Your task to perform on an android device: add a contact in the contacts app Image 0: 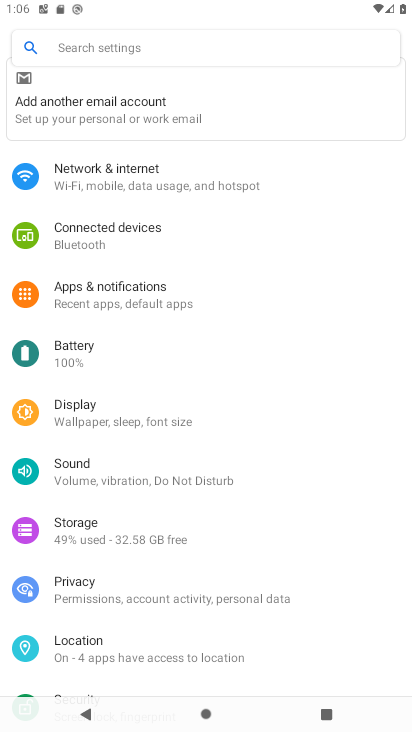
Step 0: press home button
Your task to perform on an android device: add a contact in the contacts app Image 1: 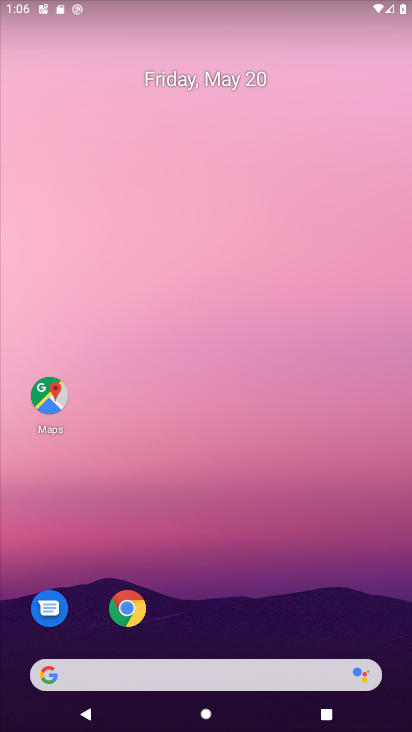
Step 1: drag from (250, 581) to (258, 281)
Your task to perform on an android device: add a contact in the contacts app Image 2: 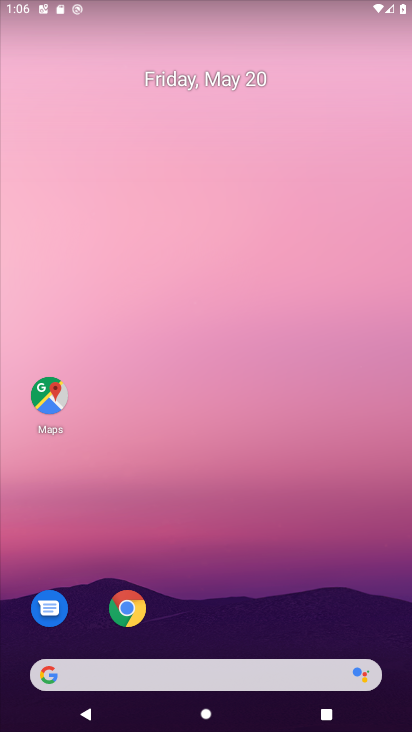
Step 2: drag from (248, 618) to (290, 125)
Your task to perform on an android device: add a contact in the contacts app Image 3: 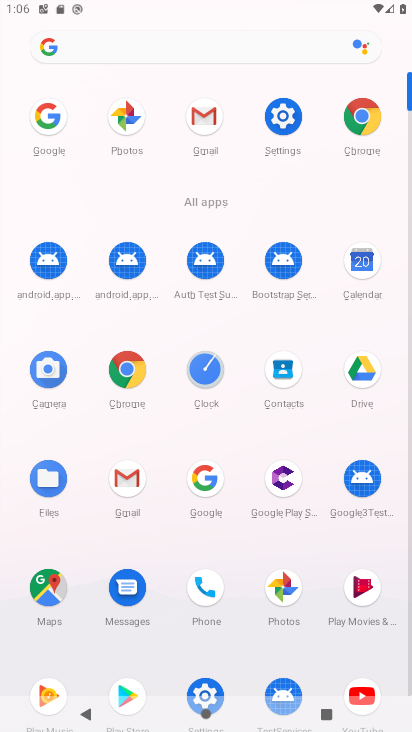
Step 3: click (270, 381)
Your task to perform on an android device: add a contact in the contacts app Image 4: 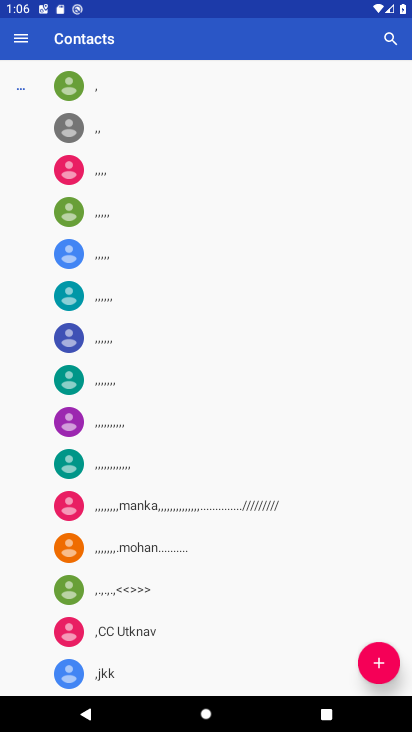
Step 4: click (382, 657)
Your task to perform on an android device: add a contact in the contacts app Image 5: 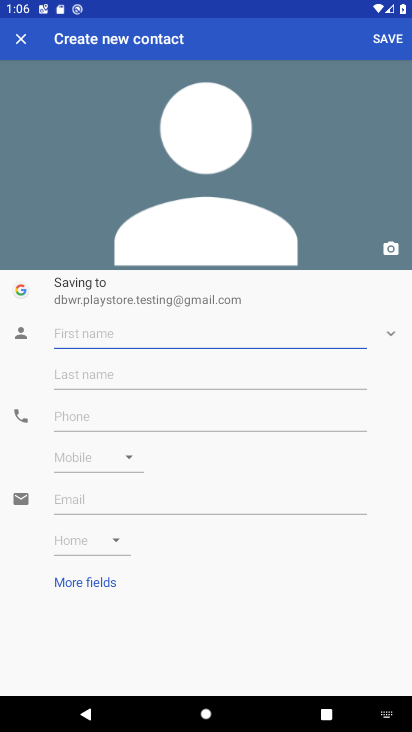
Step 5: type "kundan"
Your task to perform on an android device: add a contact in the contacts app Image 6: 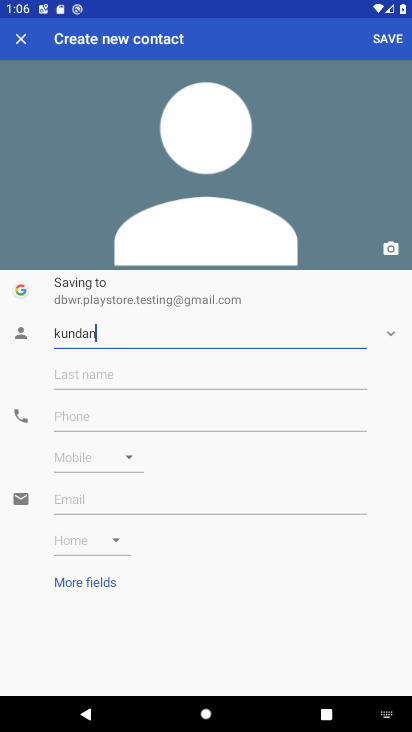
Step 6: click (111, 419)
Your task to perform on an android device: add a contact in the contacts app Image 7: 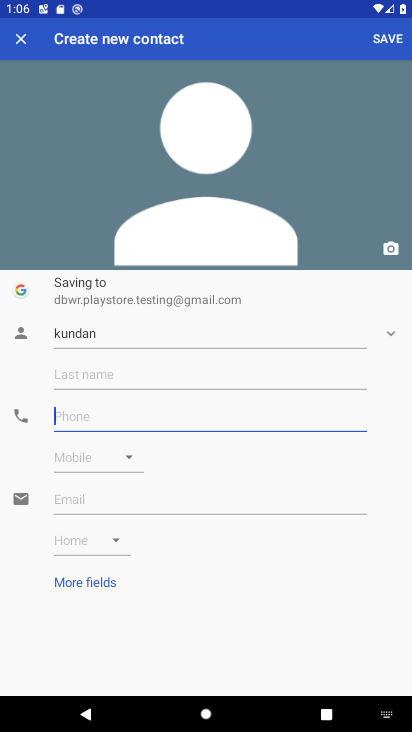
Step 7: type "66474656364"
Your task to perform on an android device: add a contact in the contacts app Image 8: 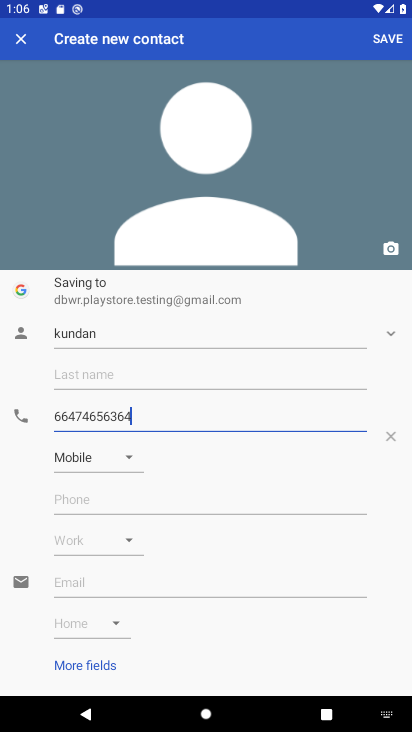
Step 8: click (387, 47)
Your task to perform on an android device: add a contact in the contacts app Image 9: 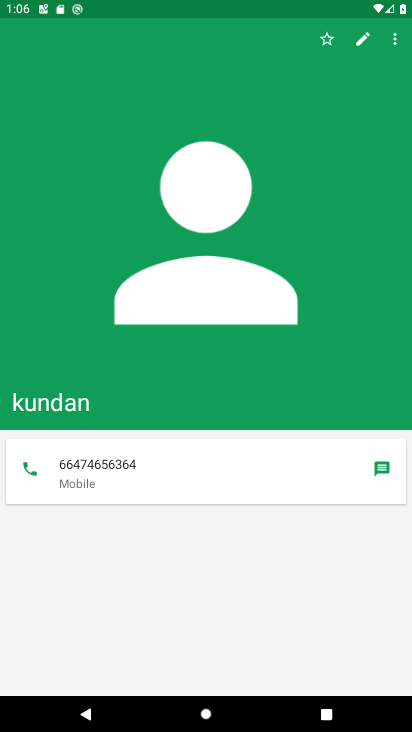
Step 9: task complete